Your task to perform on an android device: change the clock style Image 0: 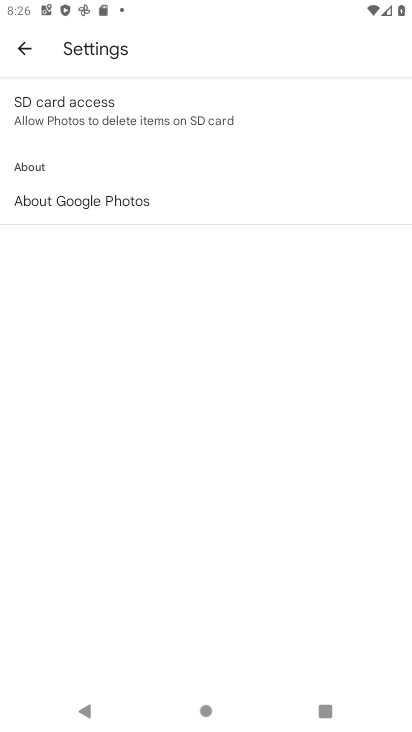
Step 0: press home button
Your task to perform on an android device: change the clock style Image 1: 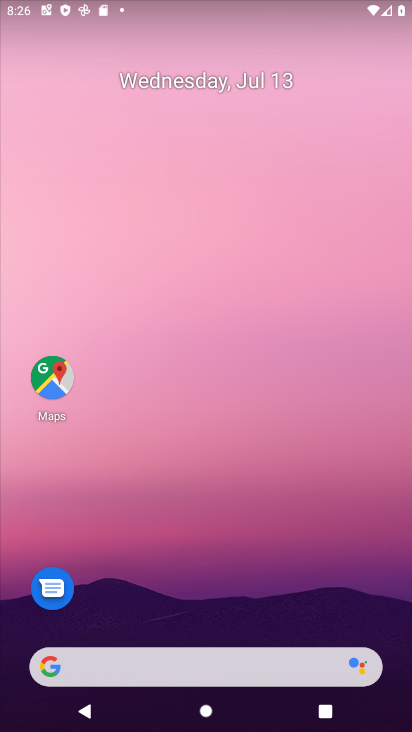
Step 1: drag from (233, 705) to (213, 24)
Your task to perform on an android device: change the clock style Image 2: 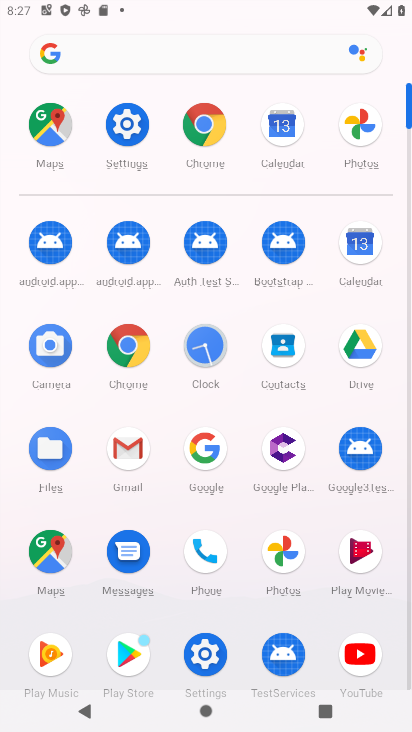
Step 2: click (205, 350)
Your task to perform on an android device: change the clock style Image 3: 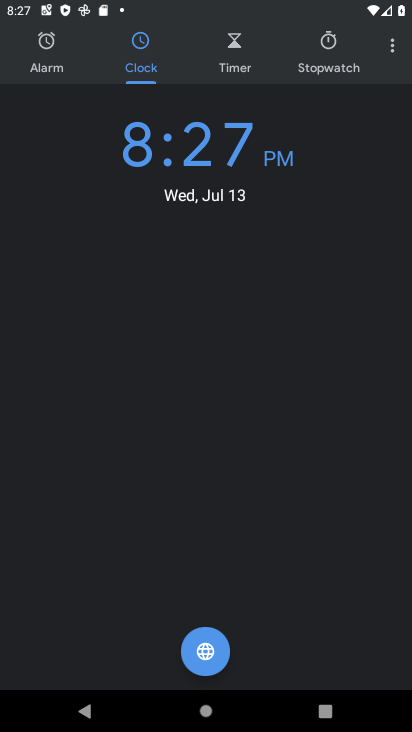
Step 3: click (395, 44)
Your task to perform on an android device: change the clock style Image 4: 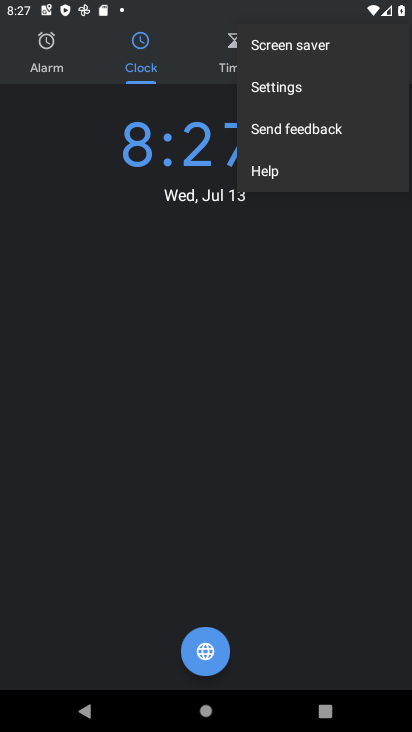
Step 4: click (318, 95)
Your task to perform on an android device: change the clock style Image 5: 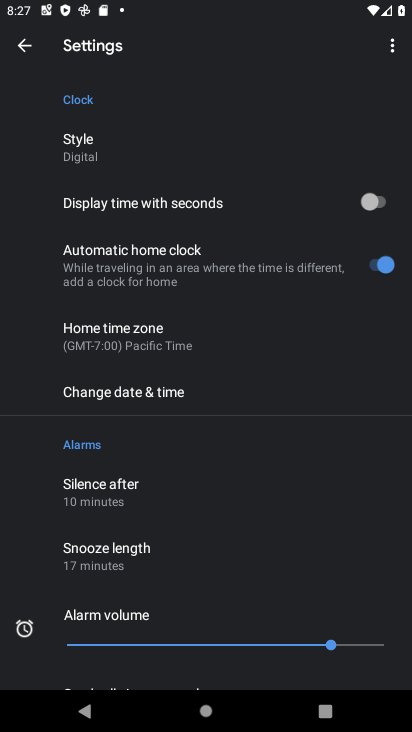
Step 5: click (119, 149)
Your task to perform on an android device: change the clock style Image 6: 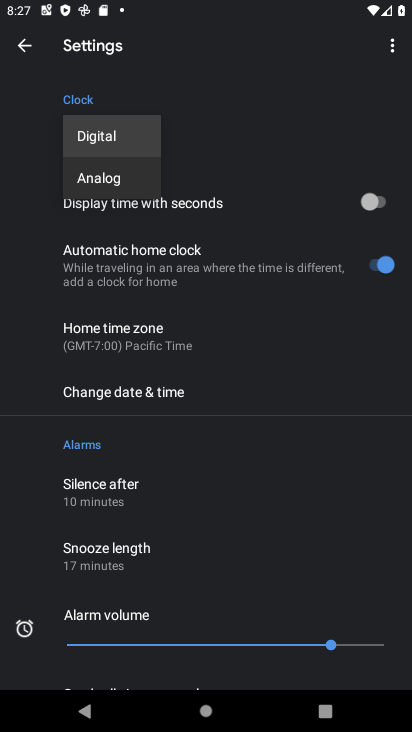
Step 6: click (127, 186)
Your task to perform on an android device: change the clock style Image 7: 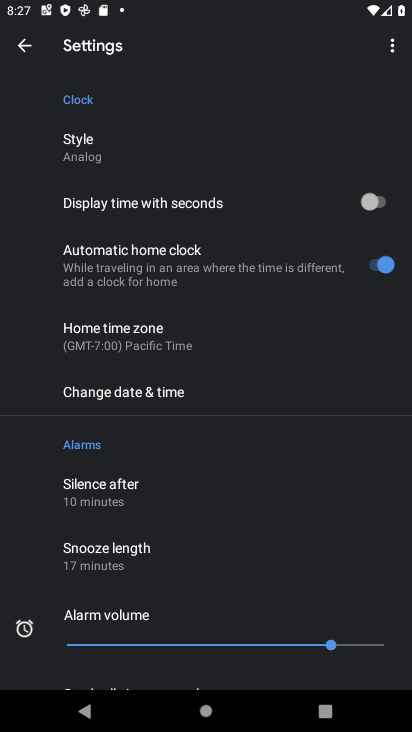
Step 7: task complete